Your task to perform on an android device: turn smart compose on in the gmail app Image 0: 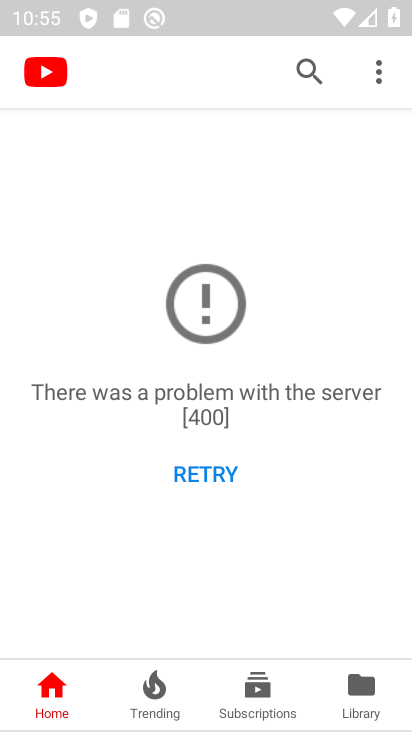
Step 0: press home button
Your task to perform on an android device: turn smart compose on in the gmail app Image 1: 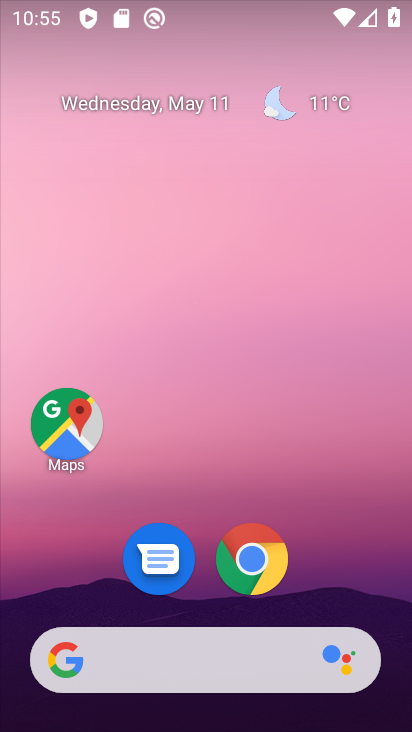
Step 1: drag from (313, 583) to (241, 9)
Your task to perform on an android device: turn smart compose on in the gmail app Image 2: 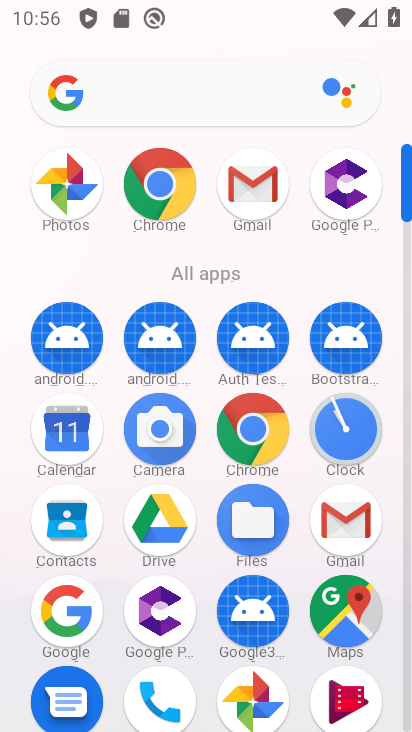
Step 2: click (274, 174)
Your task to perform on an android device: turn smart compose on in the gmail app Image 3: 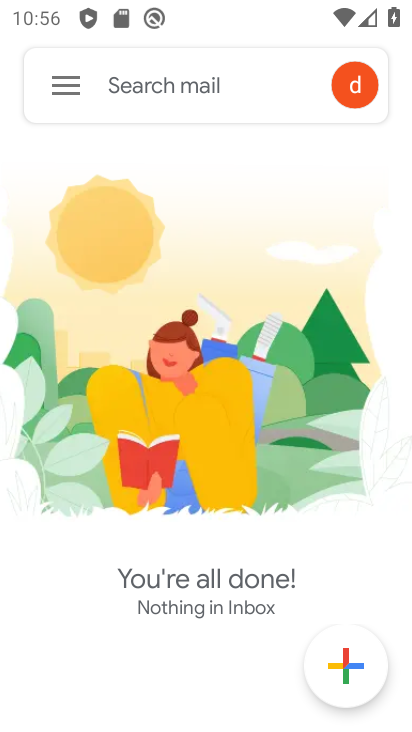
Step 3: click (70, 102)
Your task to perform on an android device: turn smart compose on in the gmail app Image 4: 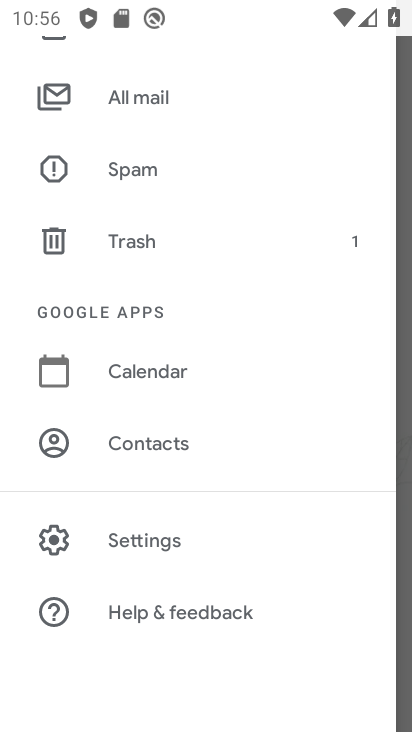
Step 4: click (167, 548)
Your task to perform on an android device: turn smart compose on in the gmail app Image 5: 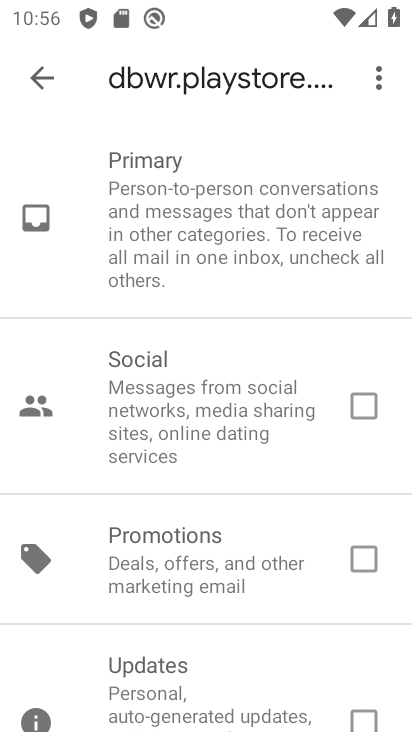
Step 5: drag from (245, 661) to (247, 255)
Your task to perform on an android device: turn smart compose on in the gmail app Image 6: 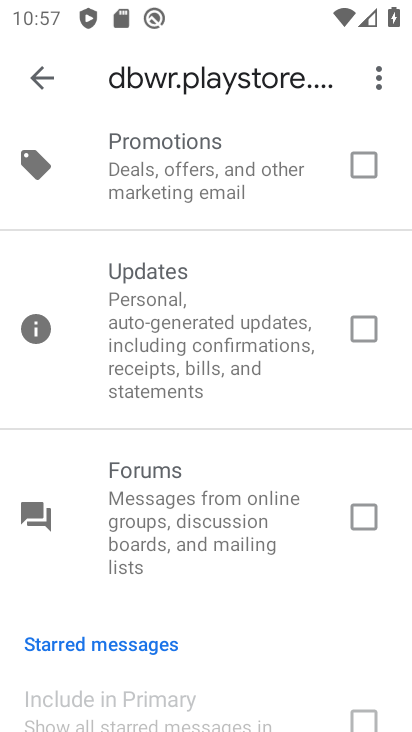
Step 6: drag from (256, 565) to (209, 161)
Your task to perform on an android device: turn smart compose on in the gmail app Image 7: 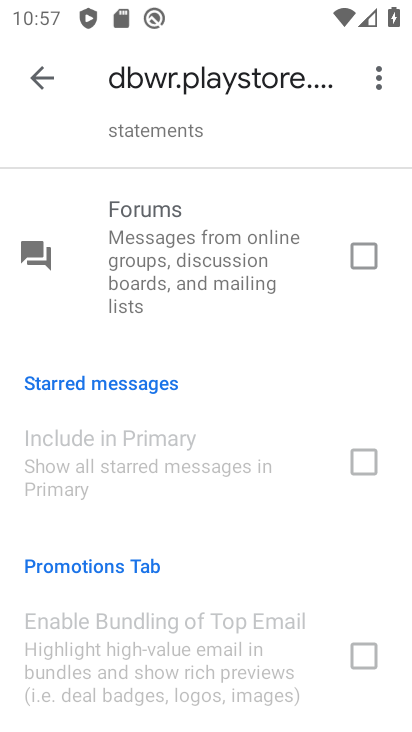
Step 7: drag from (241, 521) to (207, 121)
Your task to perform on an android device: turn smart compose on in the gmail app Image 8: 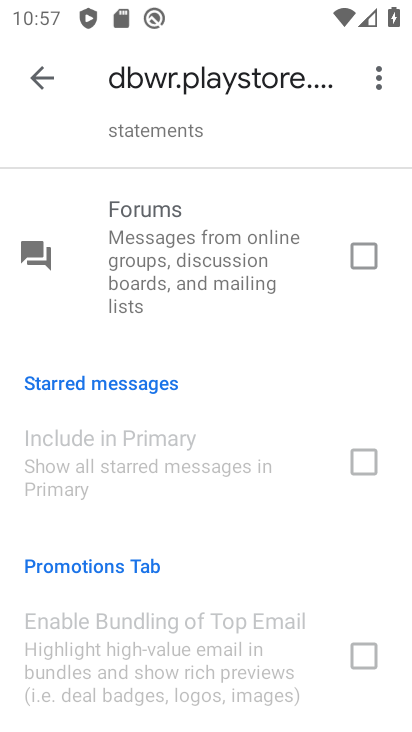
Step 8: drag from (214, 175) to (408, 672)
Your task to perform on an android device: turn smart compose on in the gmail app Image 9: 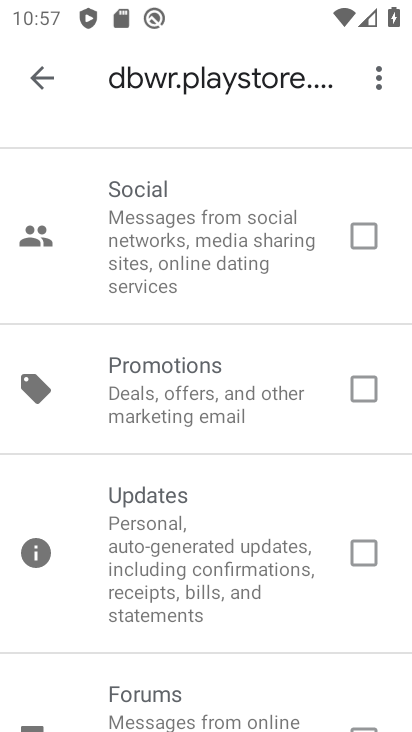
Step 9: click (44, 69)
Your task to perform on an android device: turn smart compose on in the gmail app Image 10: 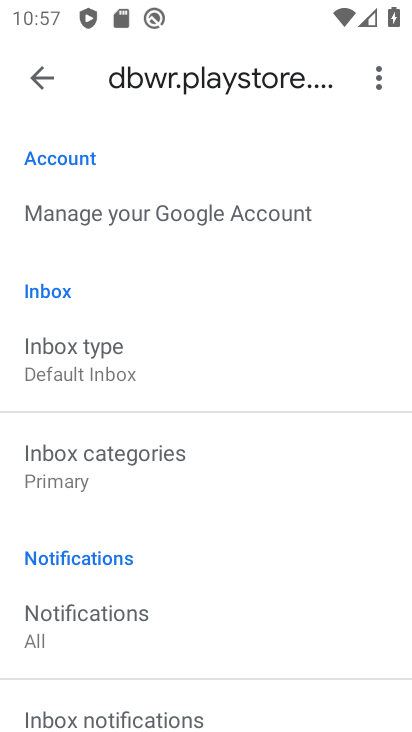
Step 10: task complete